Your task to perform on an android device: Show me productivity apps on the Play Store Image 0: 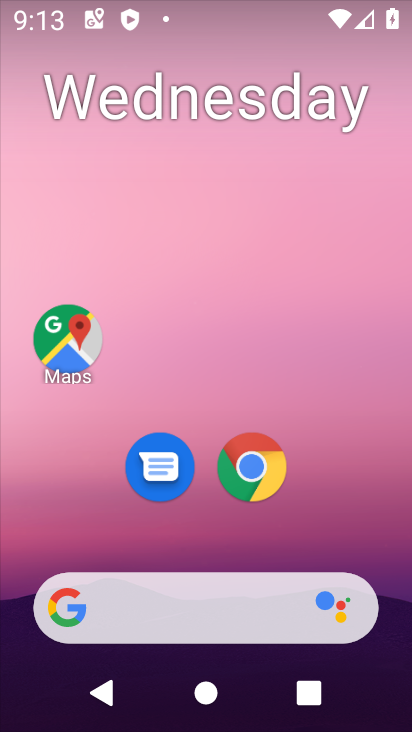
Step 0: drag from (341, 541) to (249, 89)
Your task to perform on an android device: Show me productivity apps on the Play Store Image 1: 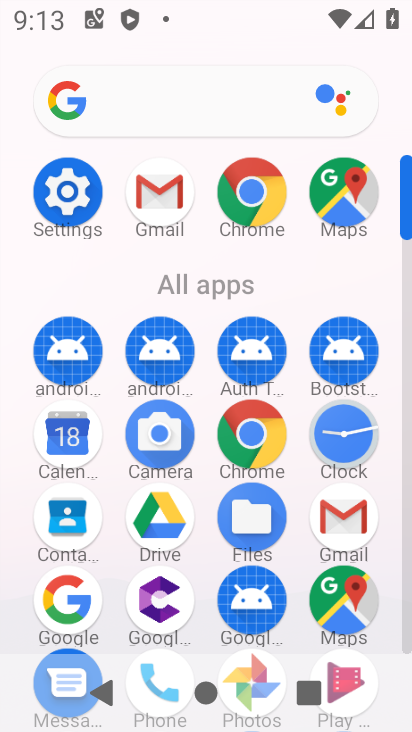
Step 1: drag from (193, 579) to (208, 187)
Your task to perform on an android device: Show me productivity apps on the Play Store Image 2: 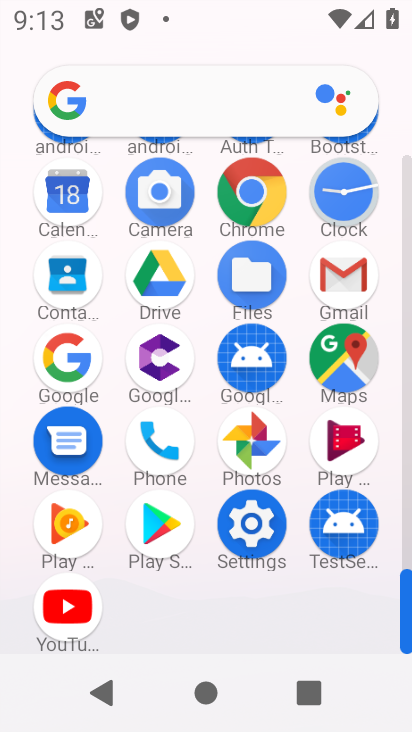
Step 2: click (156, 538)
Your task to perform on an android device: Show me productivity apps on the Play Store Image 3: 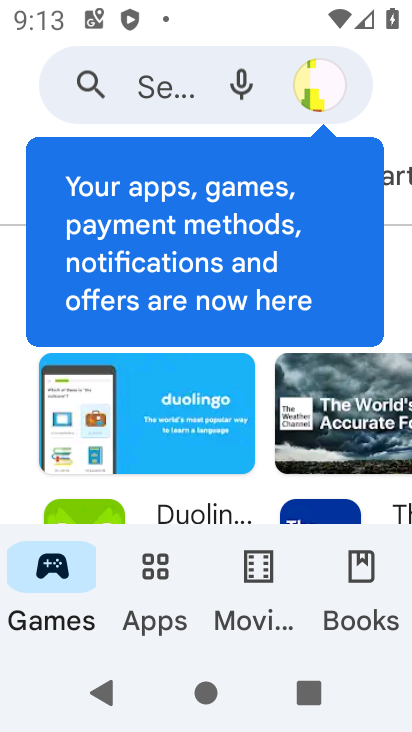
Step 3: click (156, 570)
Your task to perform on an android device: Show me productivity apps on the Play Store Image 4: 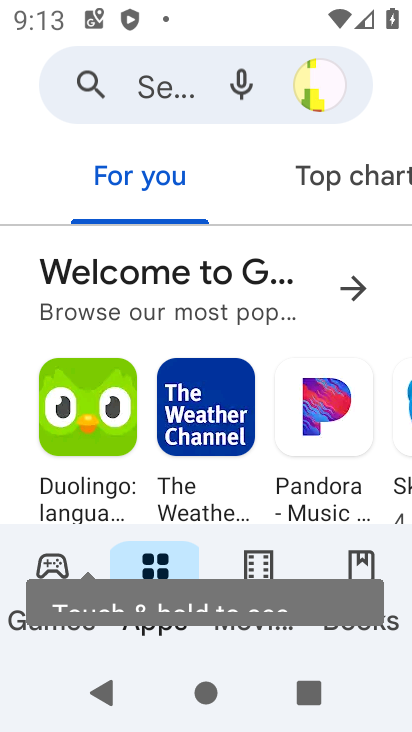
Step 4: click (153, 85)
Your task to perform on an android device: Show me productivity apps on the Play Store Image 5: 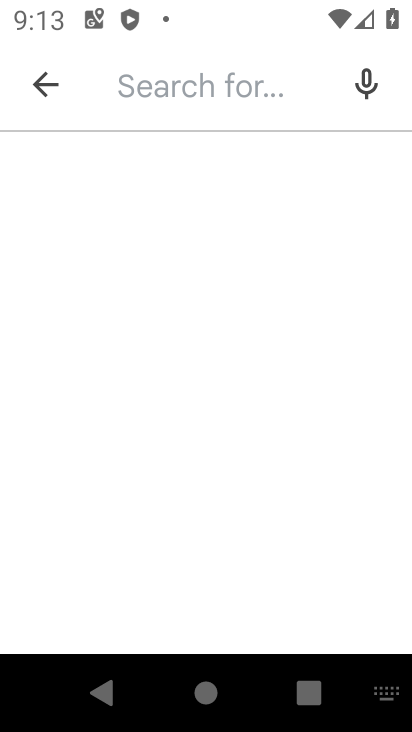
Step 5: type "productivity apps"
Your task to perform on an android device: Show me productivity apps on the Play Store Image 6: 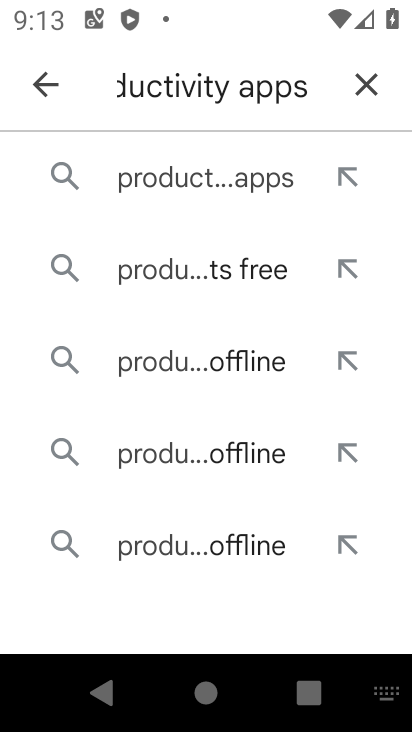
Step 6: click (215, 164)
Your task to perform on an android device: Show me productivity apps on the Play Store Image 7: 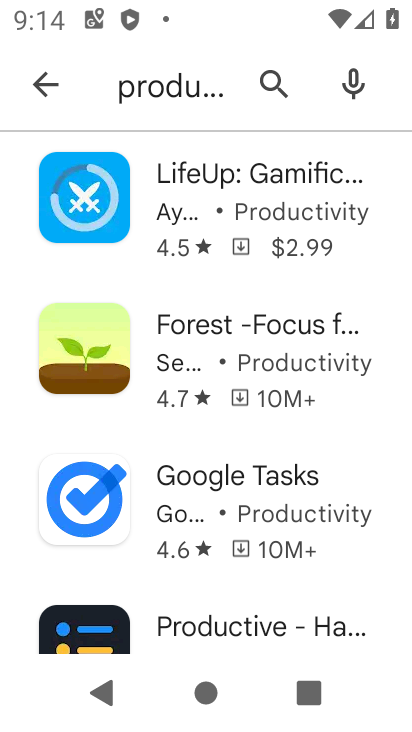
Step 7: task complete